Your task to perform on an android device: Go to notification settings Image 0: 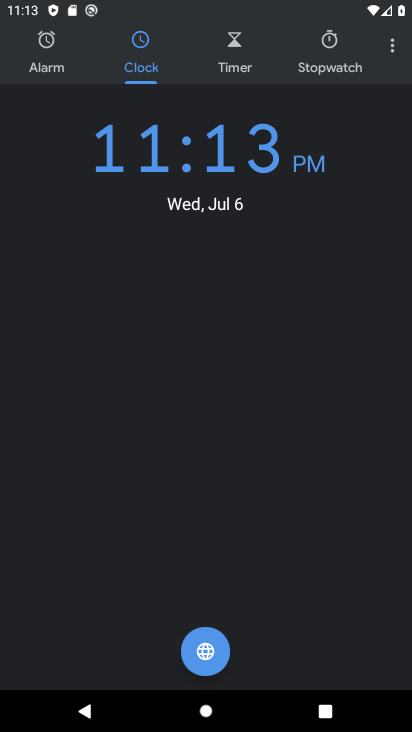
Step 0: press home button
Your task to perform on an android device: Go to notification settings Image 1: 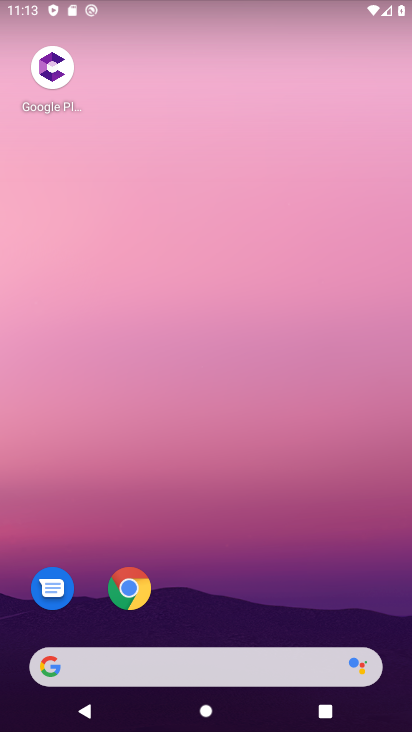
Step 1: drag from (242, 587) to (280, 272)
Your task to perform on an android device: Go to notification settings Image 2: 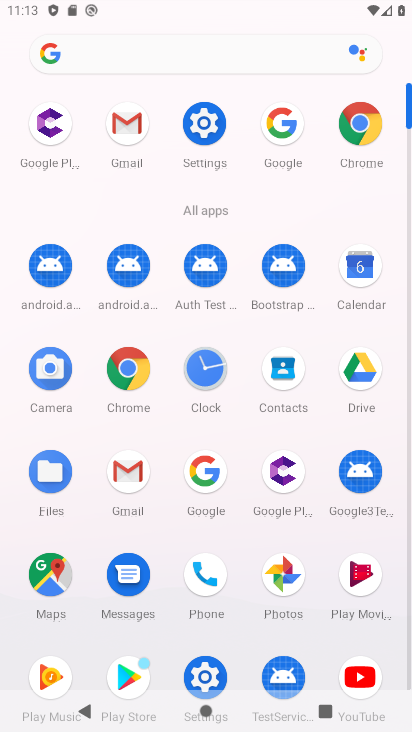
Step 2: click (209, 126)
Your task to perform on an android device: Go to notification settings Image 3: 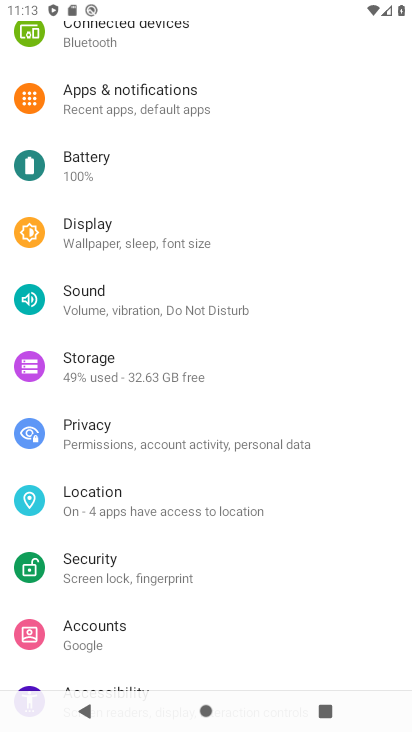
Step 3: click (185, 106)
Your task to perform on an android device: Go to notification settings Image 4: 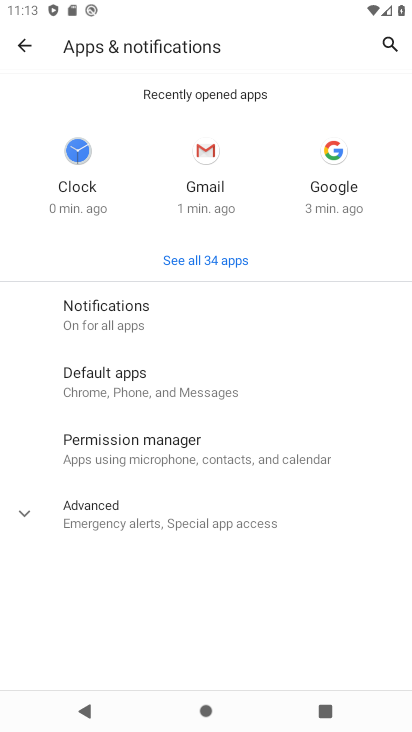
Step 4: click (172, 315)
Your task to perform on an android device: Go to notification settings Image 5: 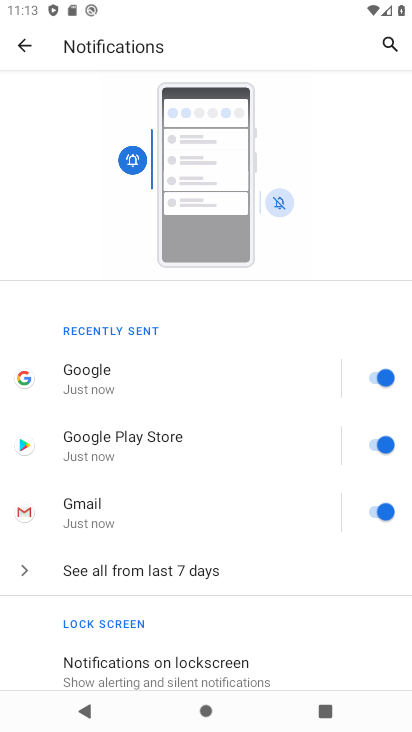
Step 5: task complete